Your task to perform on an android device: empty trash in the gmail app Image 0: 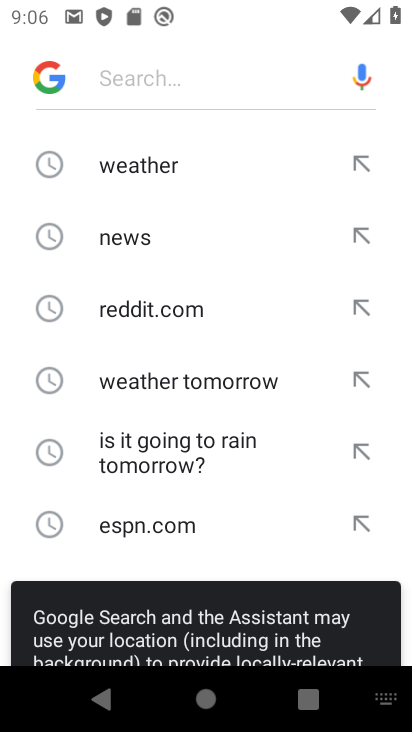
Step 0: press back button
Your task to perform on an android device: empty trash in the gmail app Image 1: 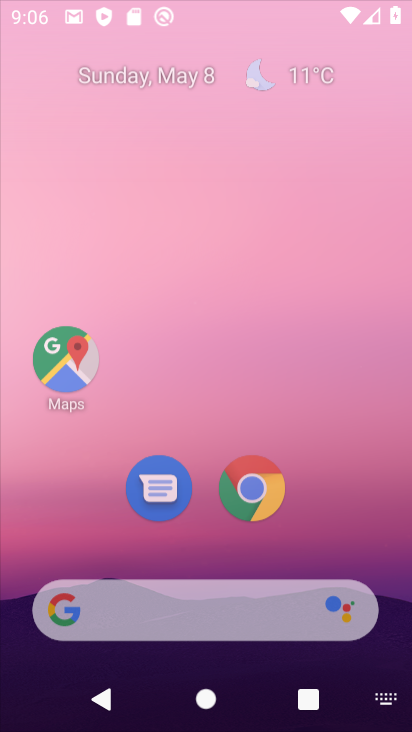
Step 1: press back button
Your task to perform on an android device: empty trash in the gmail app Image 2: 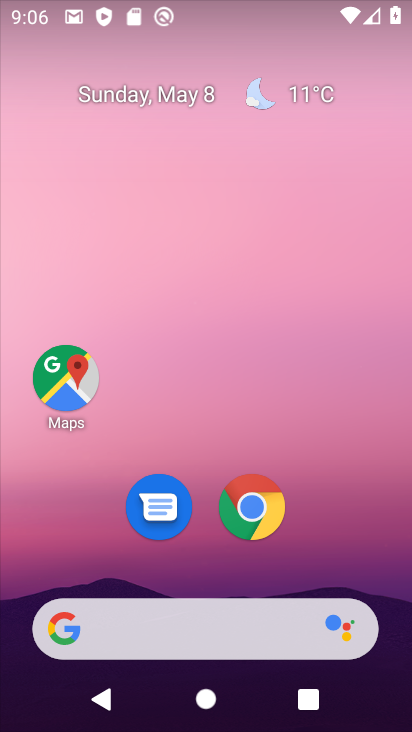
Step 2: drag from (192, 587) to (259, 107)
Your task to perform on an android device: empty trash in the gmail app Image 3: 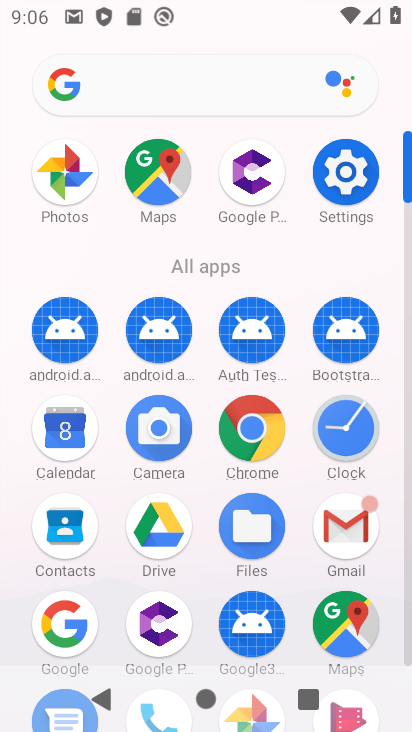
Step 3: click (363, 515)
Your task to perform on an android device: empty trash in the gmail app Image 4: 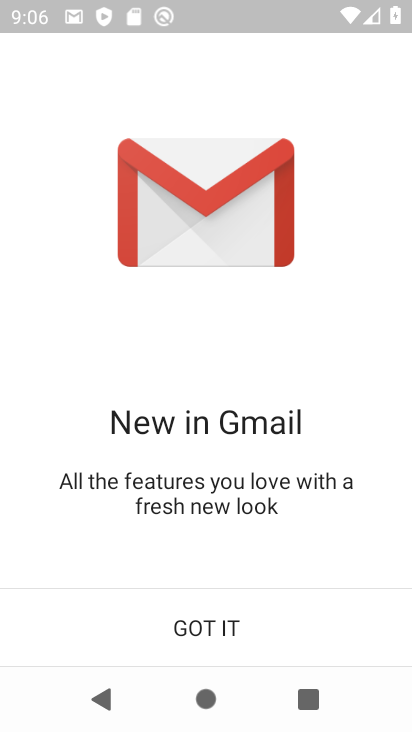
Step 4: click (288, 611)
Your task to perform on an android device: empty trash in the gmail app Image 5: 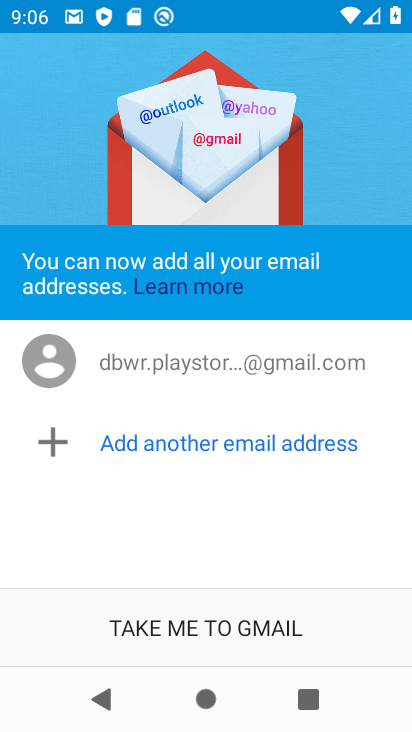
Step 5: click (288, 611)
Your task to perform on an android device: empty trash in the gmail app Image 6: 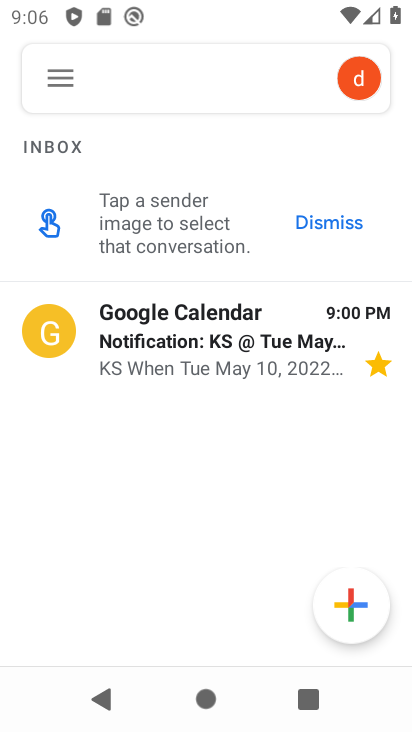
Step 6: click (41, 77)
Your task to perform on an android device: empty trash in the gmail app Image 7: 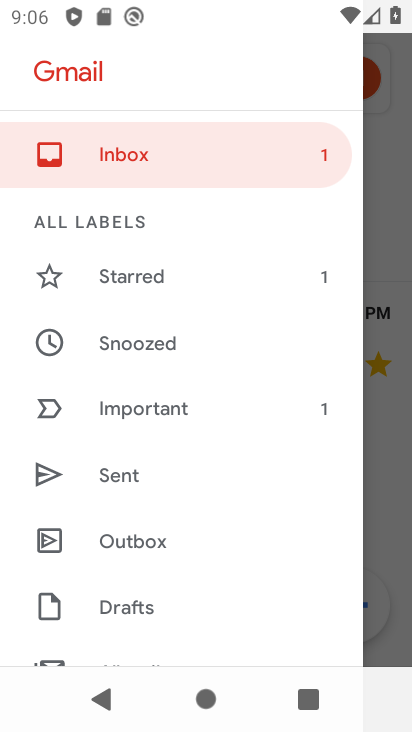
Step 7: drag from (223, 664) to (285, 245)
Your task to perform on an android device: empty trash in the gmail app Image 8: 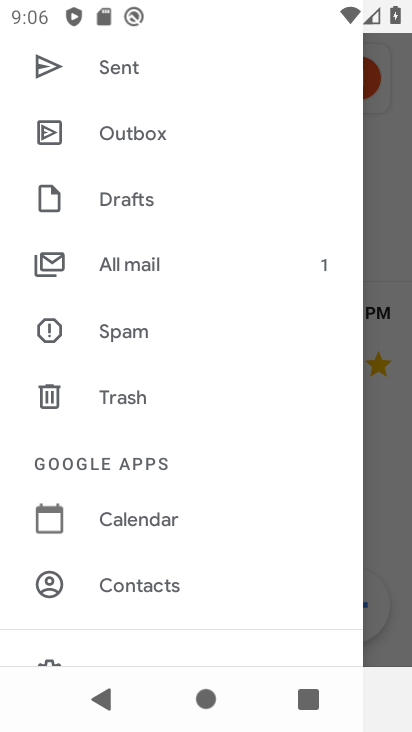
Step 8: click (189, 391)
Your task to perform on an android device: empty trash in the gmail app Image 9: 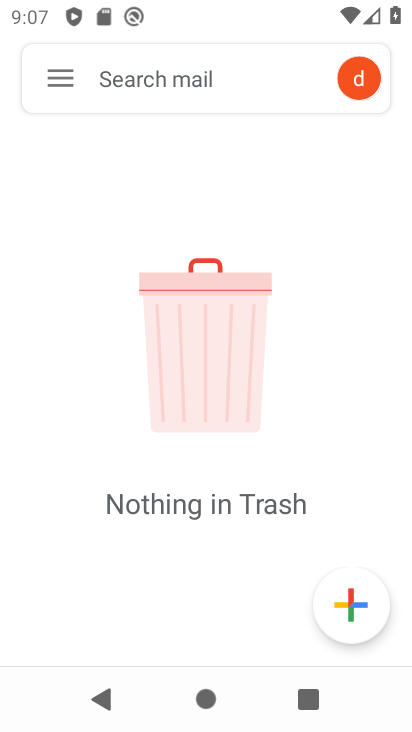
Step 9: task complete